Your task to perform on an android device: toggle priority inbox in the gmail app Image 0: 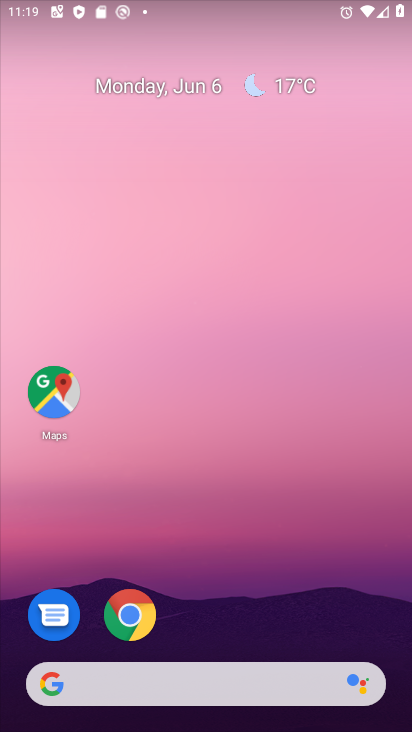
Step 0: drag from (241, 641) to (289, 196)
Your task to perform on an android device: toggle priority inbox in the gmail app Image 1: 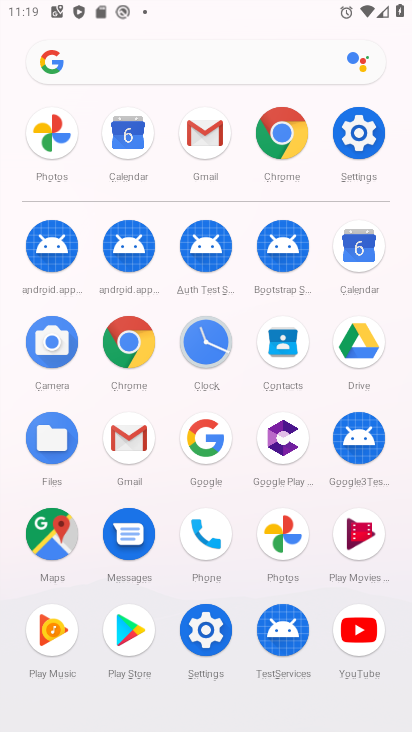
Step 1: click (130, 432)
Your task to perform on an android device: toggle priority inbox in the gmail app Image 2: 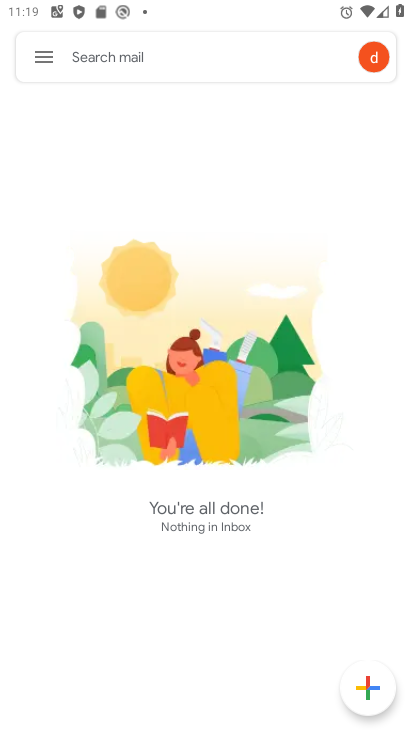
Step 2: click (40, 57)
Your task to perform on an android device: toggle priority inbox in the gmail app Image 3: 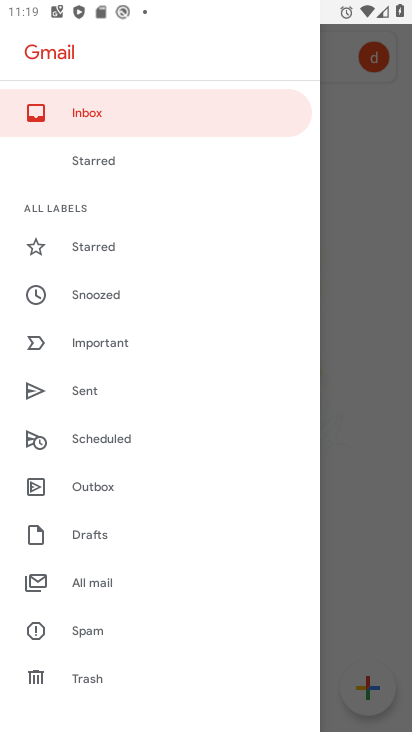
Step 3: drag from (133, 661) to (148, 223)
Your task to perform on an android device: toggle priority inbox in the gmail app Image 4: 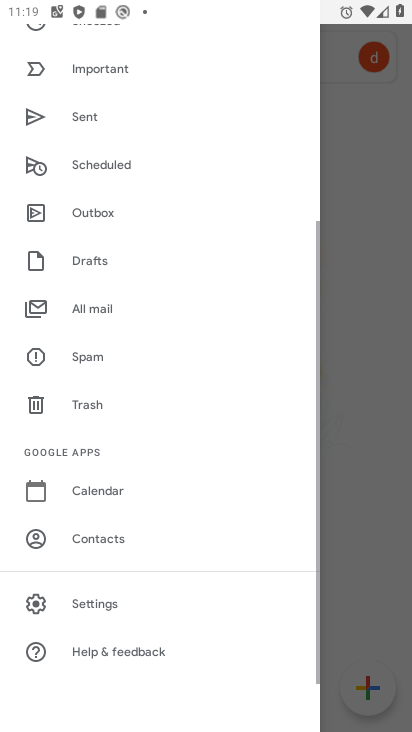
Step 4: click (126, 600)
Your task to perform on an android device: toggle priority inbox in the gmail app Image 5: 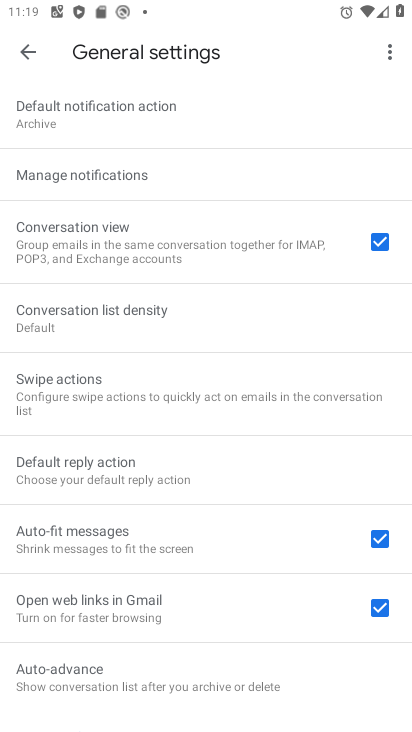
Step 5: click (137, 173)
Your task to perform on an android device: toggle priority inbox in the gmail app Image 6: 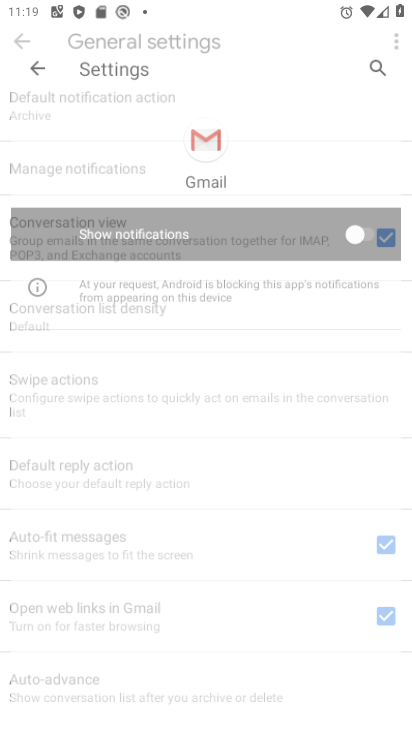
Step 6: click (39, 51)
Your task to perform on an android device: toggle priority inbox in the gmail app Image 7: 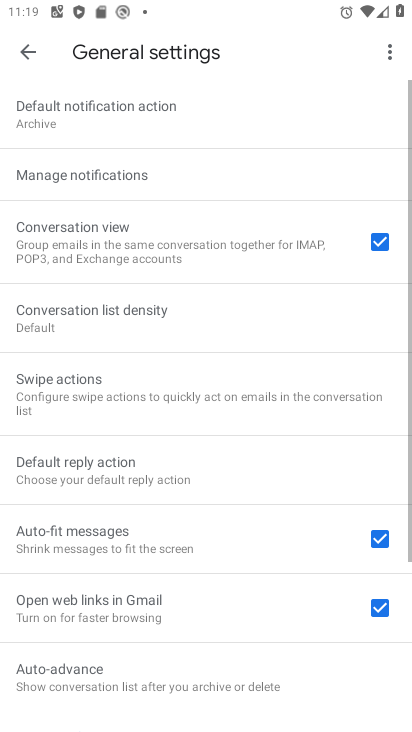
Step 7: click (39, 51)
Your task to perform on an android device: toggle priority inbox in the gmail app Image 8: 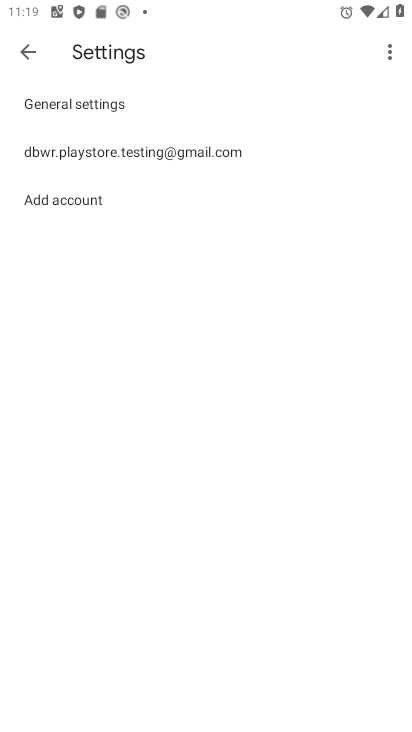
Step 8: click (106, 148)
Your task to perform on an android device: toggle priority inbox in the gmail app Image 9: 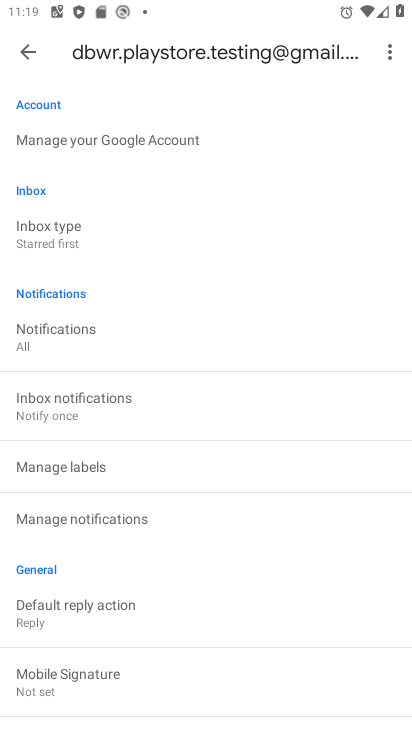
Step 9: click (109, 237)
Your task to perform on an android device: toggle priority inbox in the gmail app Image 10: 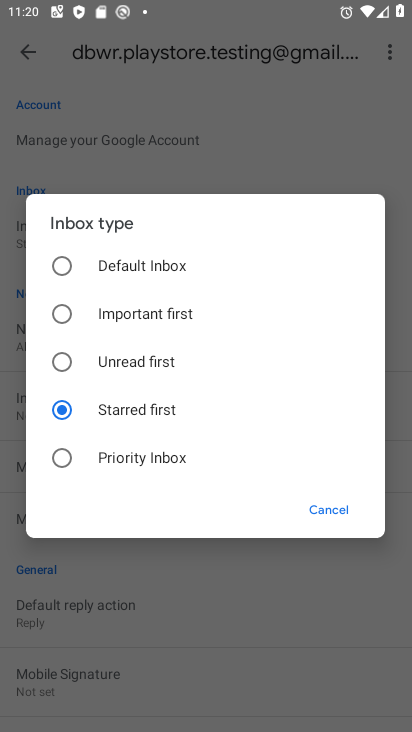
Step 10: click (61, 459)
Your task to perform on an android device: toggle priority inbox in the gmail app Image 11: 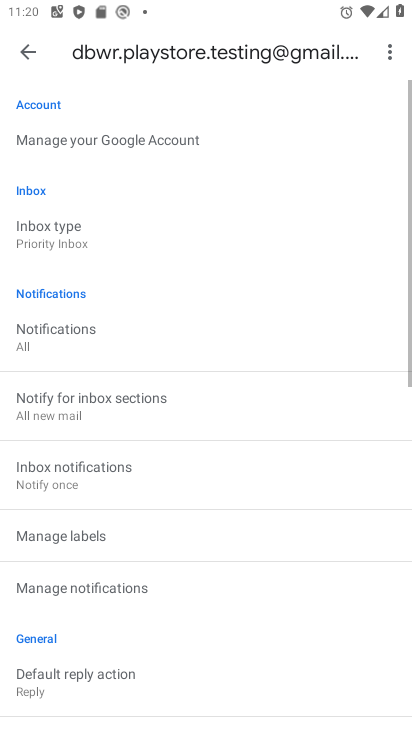
Step 11: task complete